Your task to perform on an android device: What's the weather going to be this weekend? Image 0: 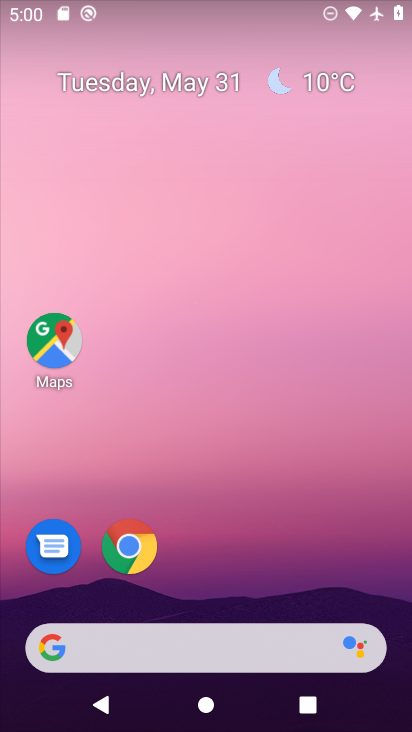
Step 0: drag from (297, 525) to (153, 13)
Your task to perform on an android device: What's the weather going to be this weekend? Image 1: 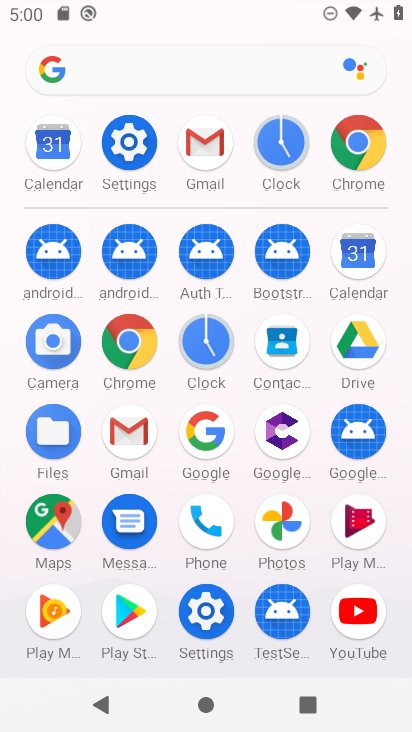
Step 1: click (224, 446)
Your task to perform on an android device: What's the weather going to be this weekend? Image 2: 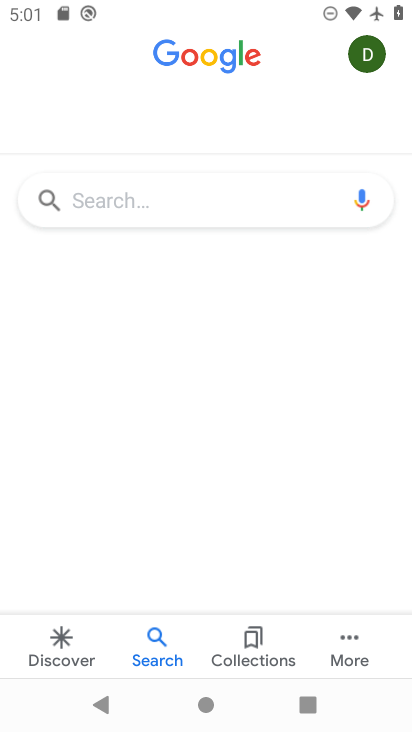
Step 2: click (196, 189)
Your task to perform on an android device: What's the weather going to be this weekend? Image 3: 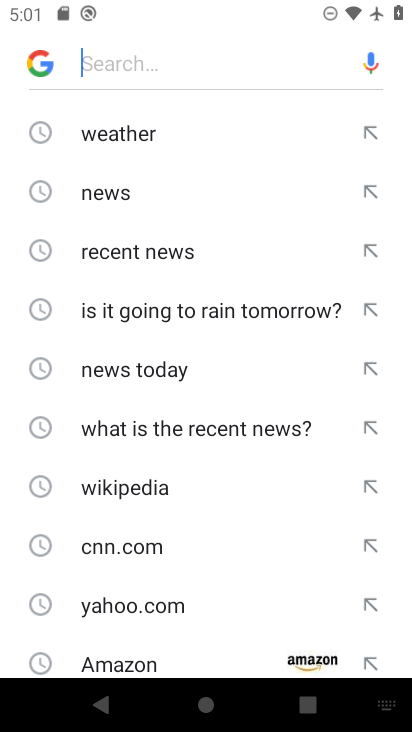
Step 3: click (111, 136)
Your task to perform on an android device: What's the weather going to be this weekend? Image 4: 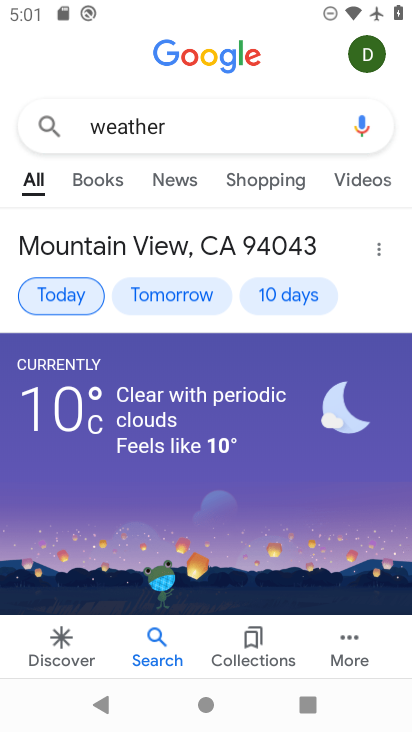
Step 4: click (287, 301)
Your task to perform on an android device: What's the weather going to be this weekend? Image 5: 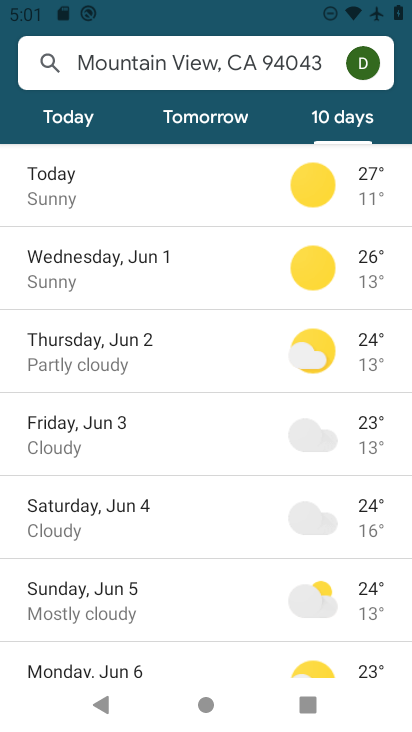
Step 5: task complete